Your task to perform on an android device: turn off notifications in google photos Image 0: 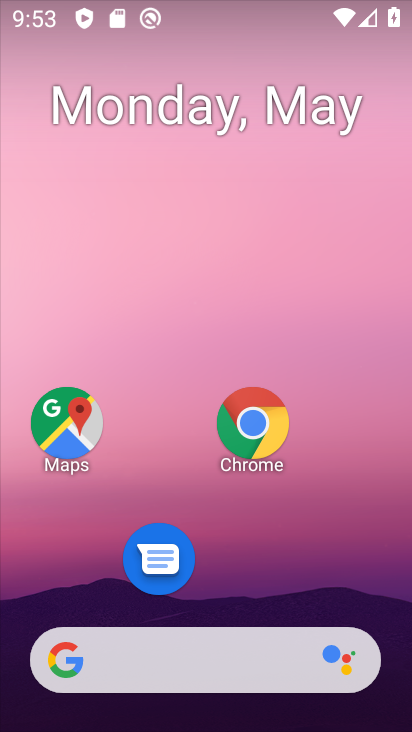
Step 0: drag from (205, 599) to (223, 69)
Your task to perform on an android device: turn off notifications in google photos Image 1: 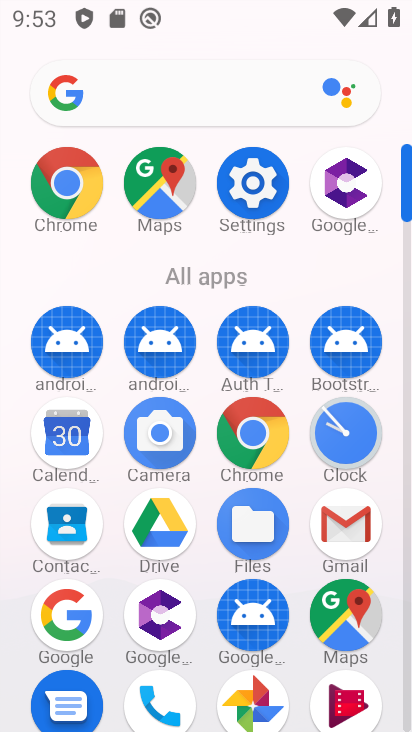
Step 1: click (266, 712)
Your task to perform on an android device: turn off notifications in google photos Image 2: 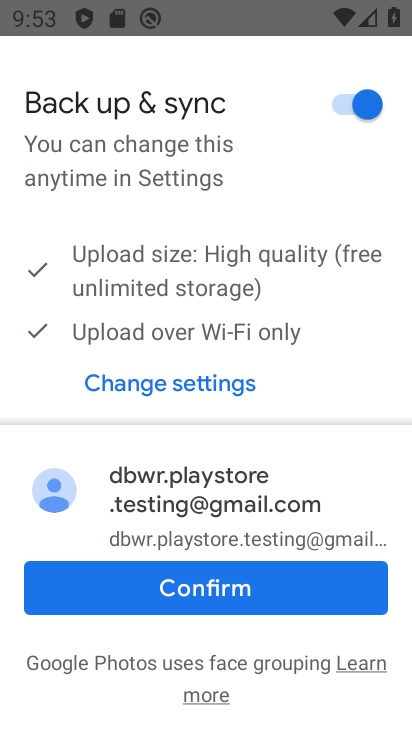
Step 2: click (197, 582)
Your task to perform on an android device: turn off notifications in google photos Image 3: 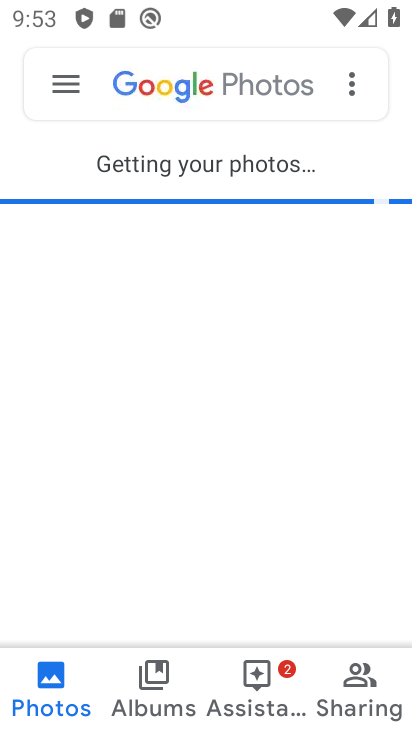
Step 3: click (56, 86)
Your task to perform on an android device: turn off notifications in google photos Image 4: 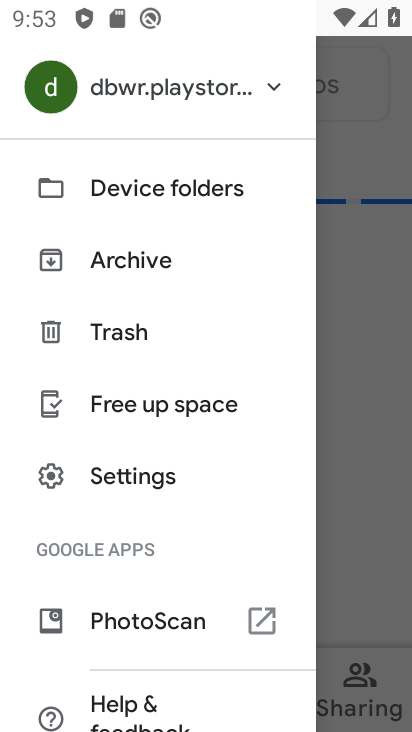
Step 4: click (143, 484)
Your task to perform on an android device: turn off notifications in google photos Image 5: 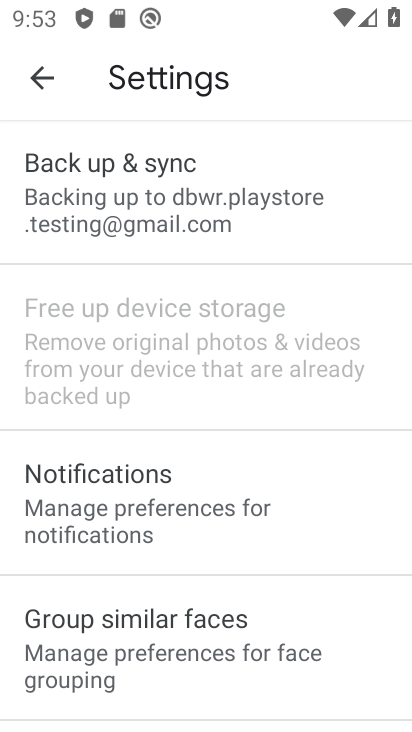
Step 5: click (143, 484)
Your task to perform on an android device: turn off notifications in google photos Image 6: 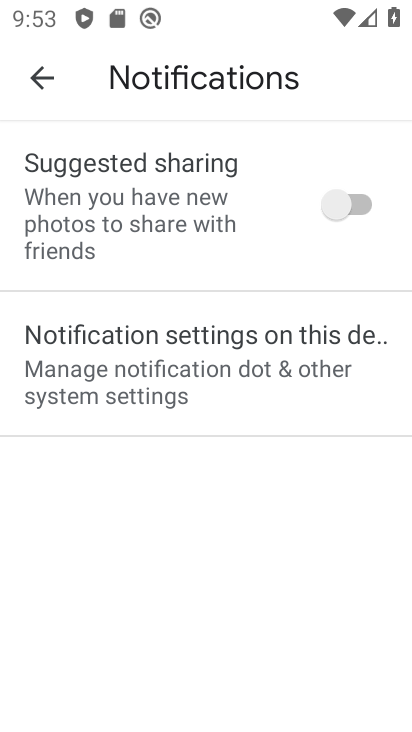
Step 6: click (203, 339)
Your task to perform on an android device: turn off notifications in google photos Image 7: 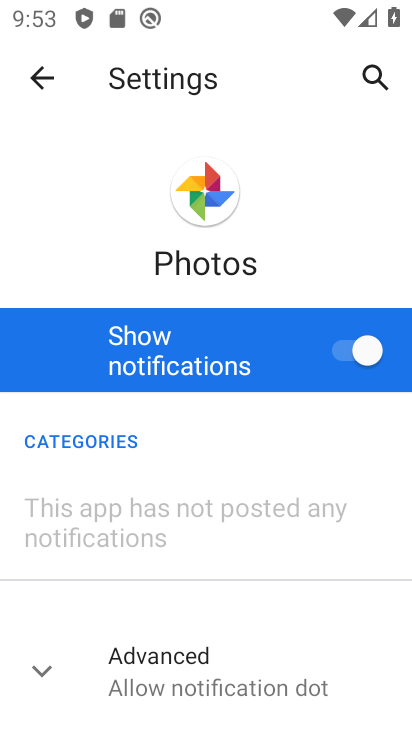
Step 7: click (363, 357)
Your task to perform on an android device: turn off notifications in google photos Image 8: 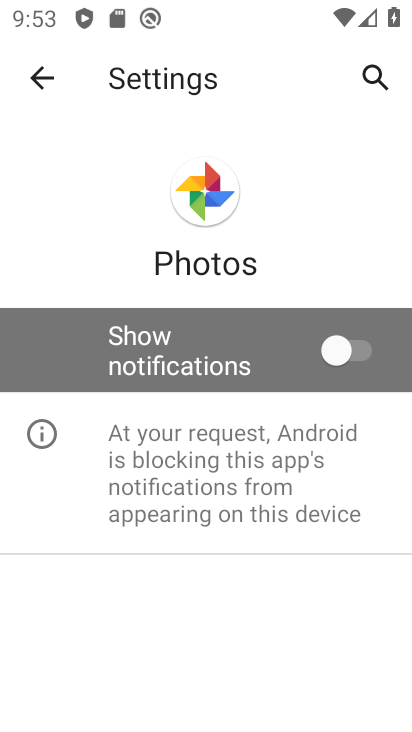
Step 8: task complete